Your task to perform on an android device: turn on wifi Image 0: 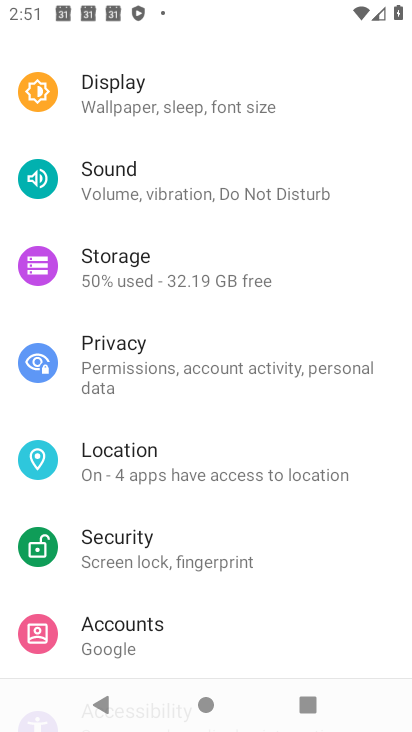
Step 0: drag from (168, 111) to (384, 725)
Your task to perform on an android device: turn on wifi Image 1: 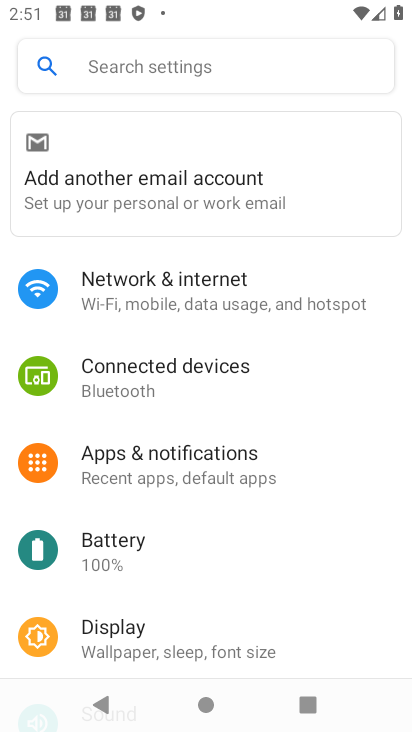
Step 1: click (121, 288)
Your task to perform on an android device: turn on wifi Image 2: 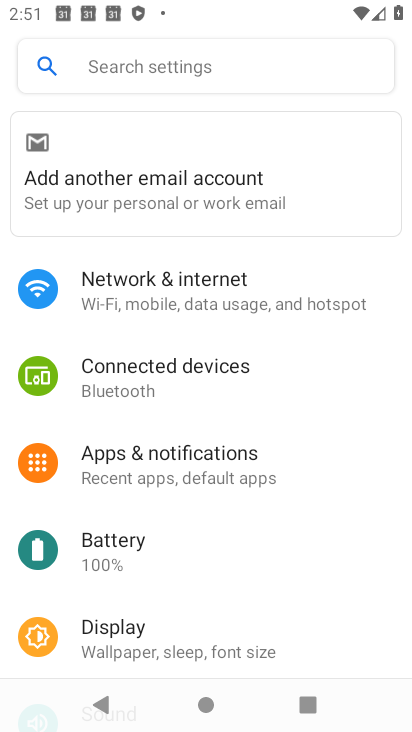
Step 2: click (121, 288)
Your task to perform on an android device: turn on wifi Image 3: 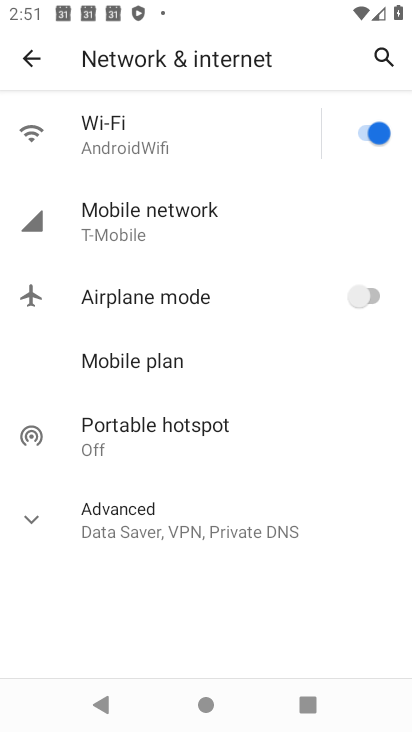
Step 3: task complete